Your task to perform on an android device: Open Chrome and go to the settings page Image 0: 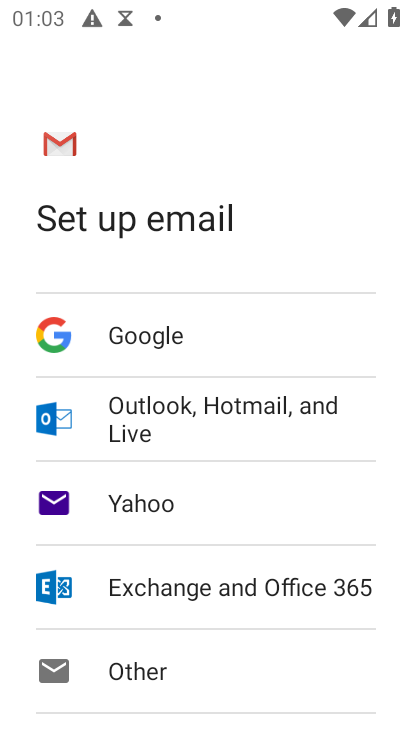
Step 0: press home button
Your task to perform on an android device: Open Chrome and go to the settings page Image 1: 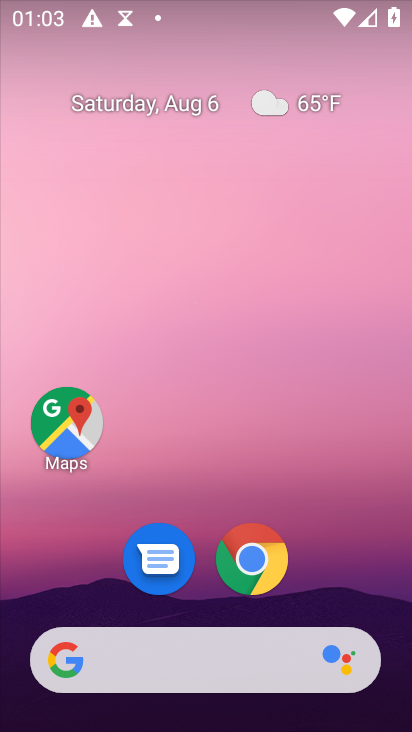
Step 1: click (267, 572)
Your task to perform on an android device: Open Chrome and go to the settings page Image 2: 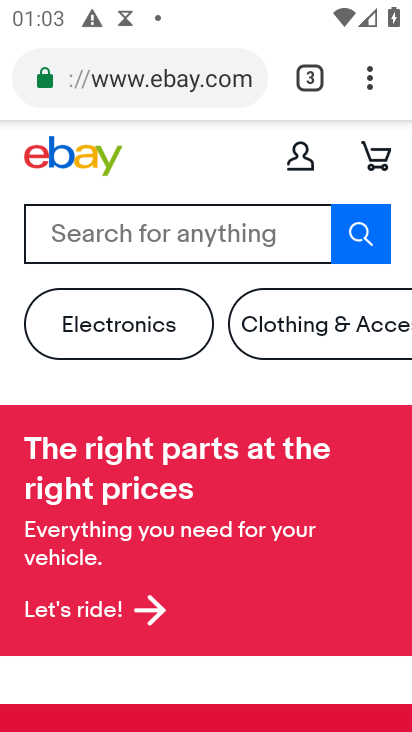
Step 2: click (371, 74)
Your task to perform on an android device: Open Chrome and go to the settings page Image 3: 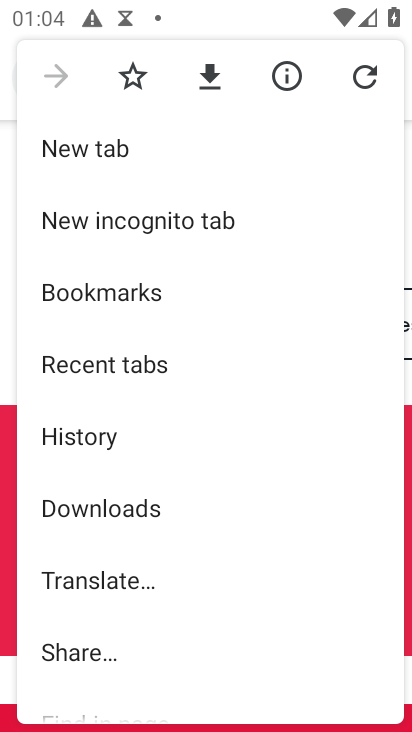
Step 3: drag from (204, 618) to (179, 186)
Your task to perform on an android device: Open Chrome and go to the settings page Image 4: 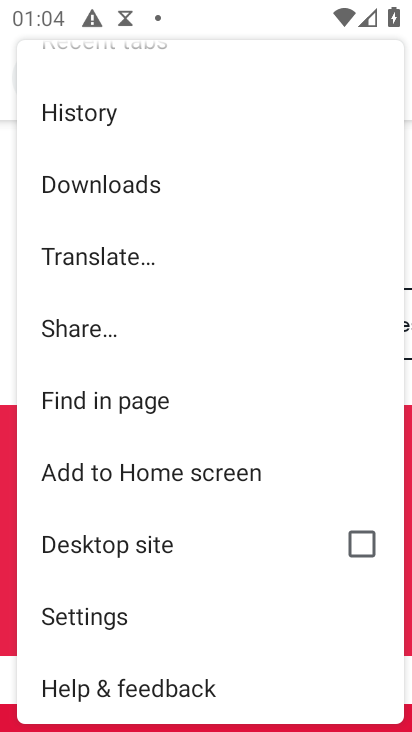
Step 4: click (142, 623)
Your task to perform on an android device: Open Chrome and go to the settings page Image 5: 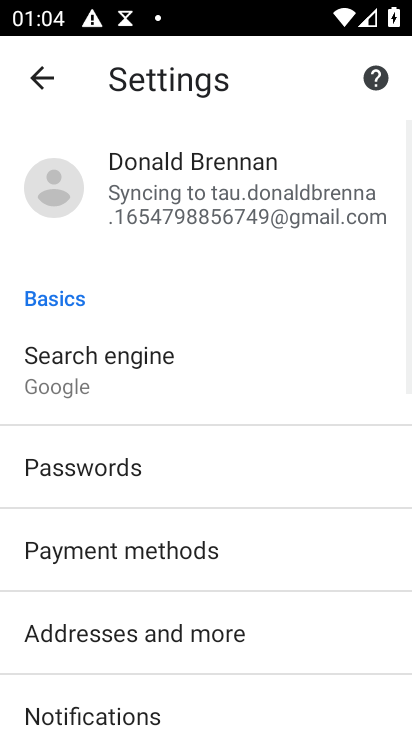
Step 5: task complete